Your task to perform on an android device: change the clock style Image 0: 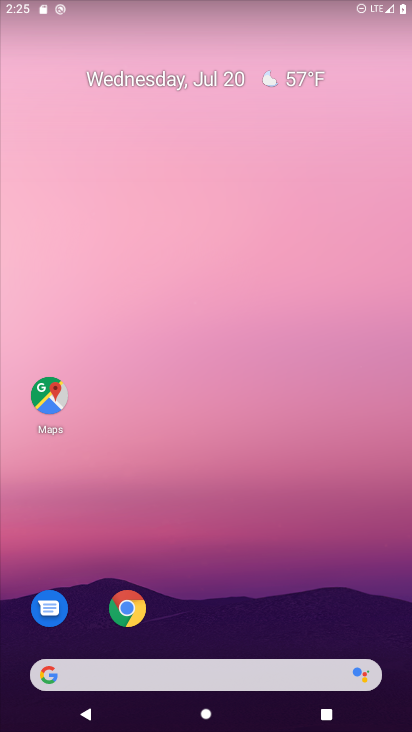
Step 0: drag from (224, 722) to (229, 283)
Your task to perform on an android device: change the clock style Image 1: 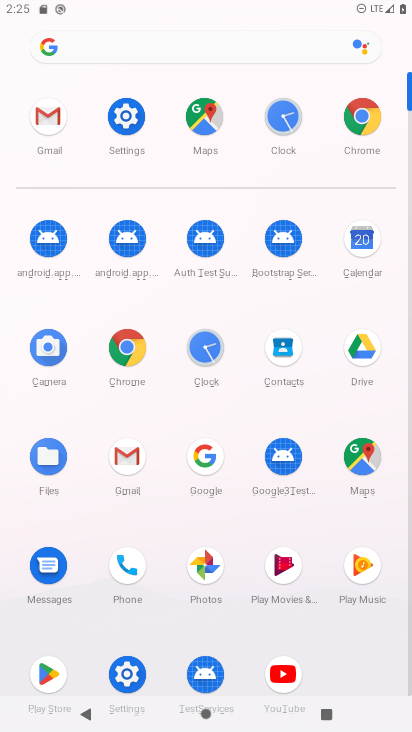
Step 1: click (203, 345)
Your task to perform on an android device: change the clock style Image 2: 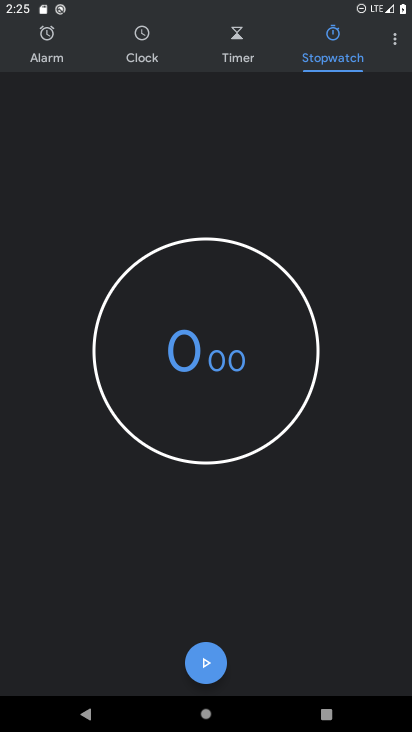
Step 2: click (397, 42)
Your task to perform on an android device: change the clock style Image 3: 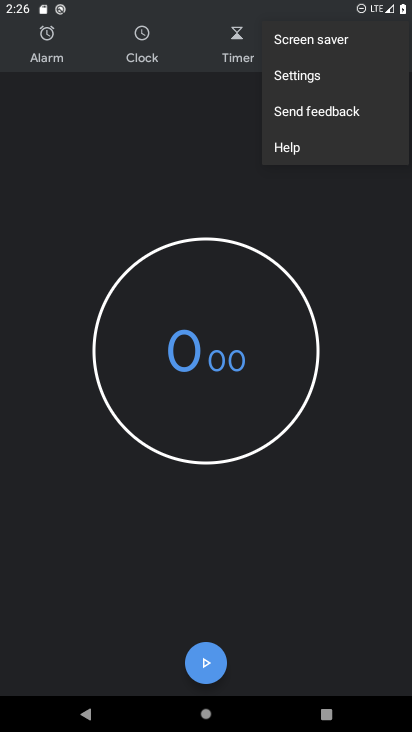
Step 3: click (308, 79)
Your task to perform on an android device: change the clock style Image 4: 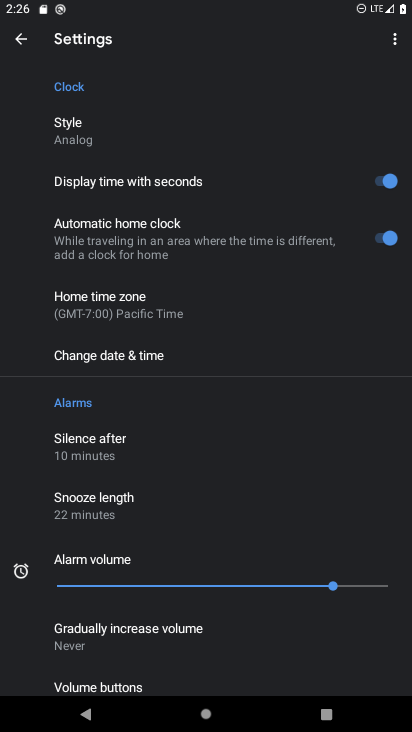
Step 4: click (77, 140)
Your task to perform on an android device: change the clock style Image 5: 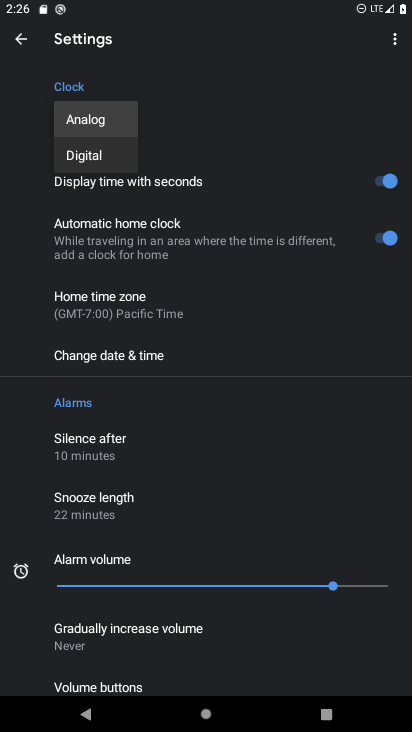
Step 5: click (75, 158)
Your task to perform on an android device: change the clock style Image 6: 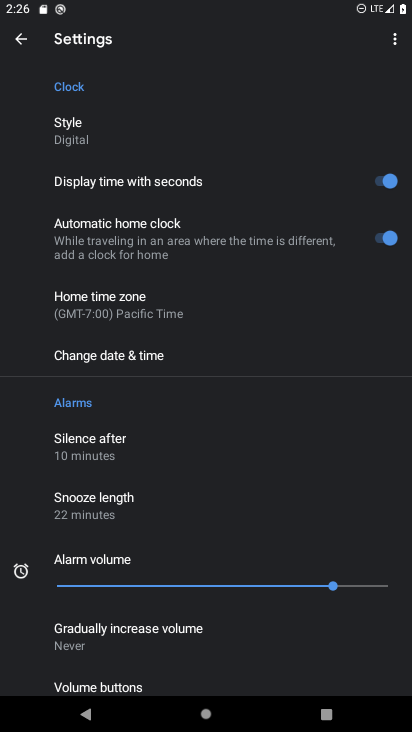
Step 6: task complete